Your task to perform on an android device: open chrome and create a bookmark for the current page Image 0: 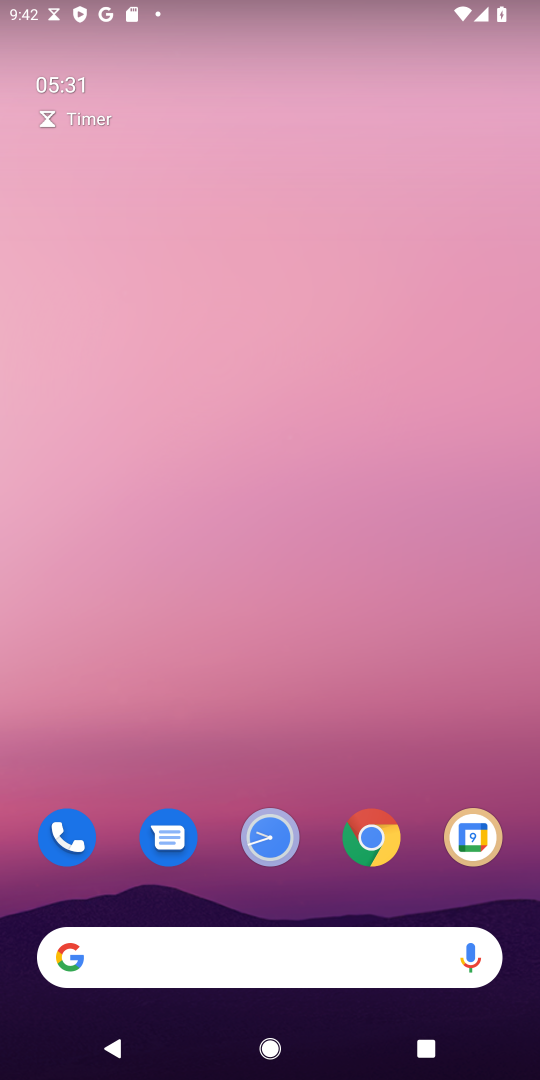
Step 0: click (373, 841)
Your task to perform on an android device: open chrome and create a bookmark for the current page Image 1: 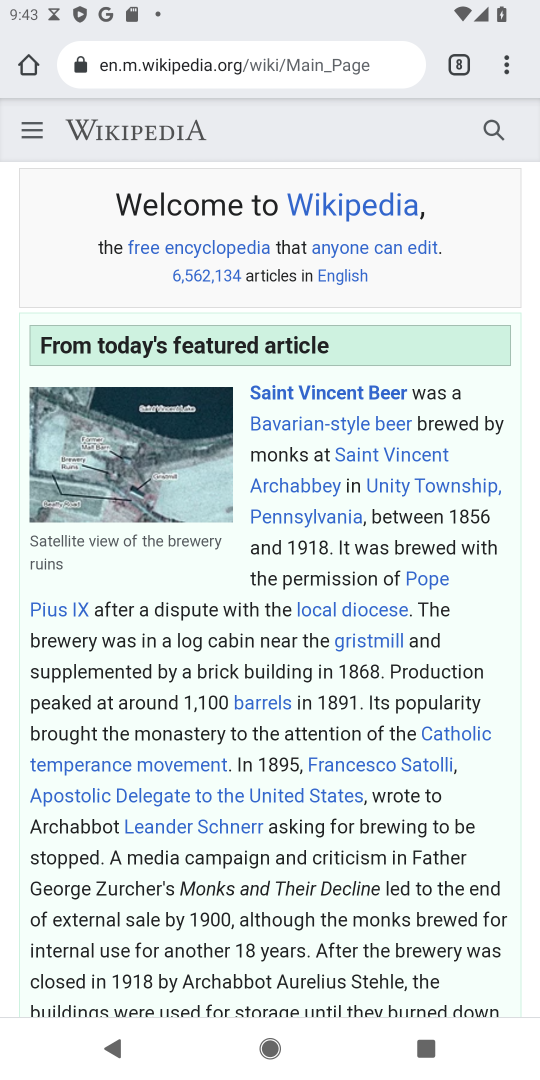
Step 1: click (507, 72)
Your task to perform on an android device: open chrome and create a bookmark for the current page Image 2: 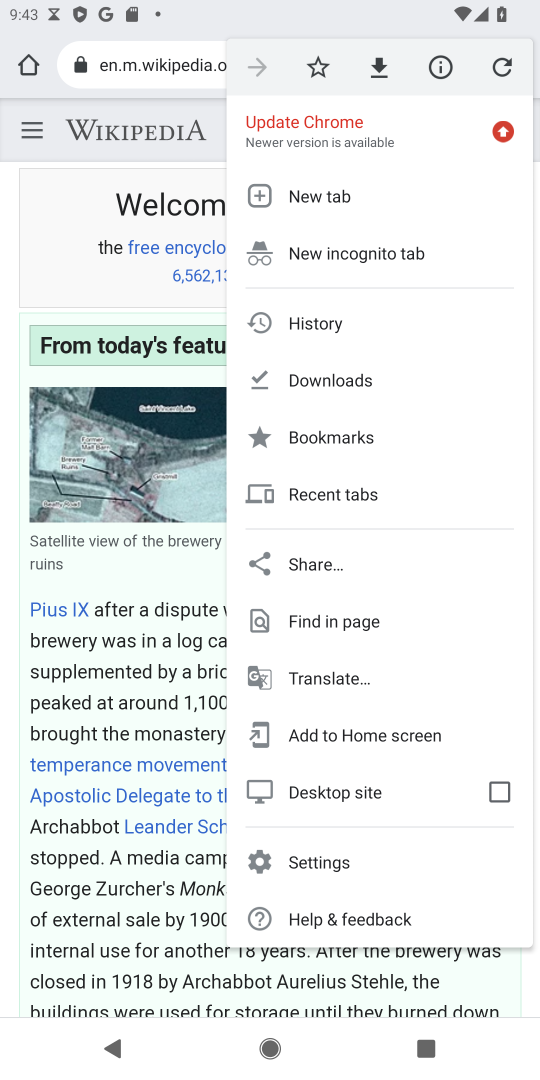
Step 2: click (316, 58)
Your task to perform on an android device: open chrome and create a bookmark for the current page Image 3: 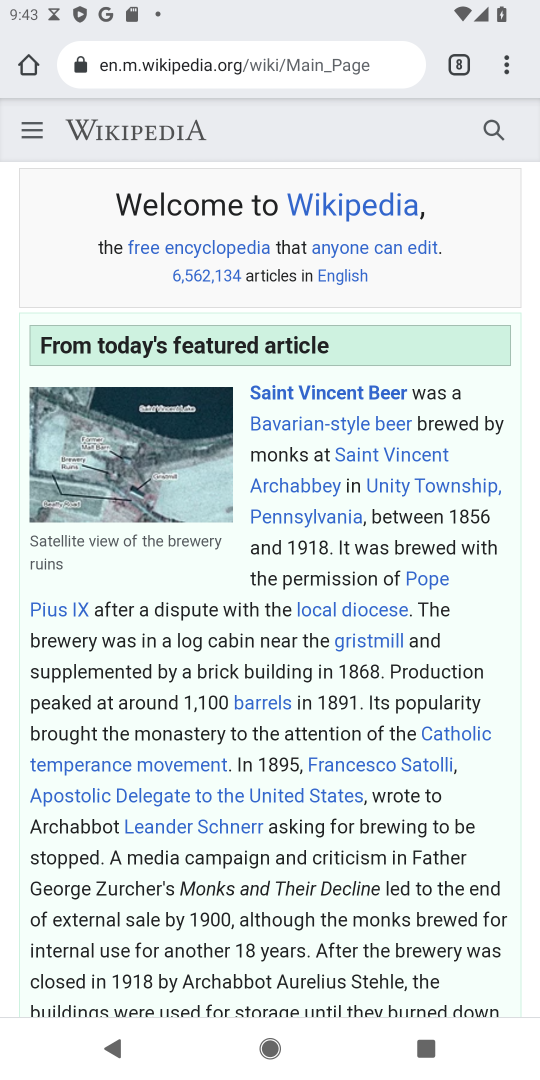
Step 3: task complete